Your task to perform on an android device: empty trash in google photos Image 0: 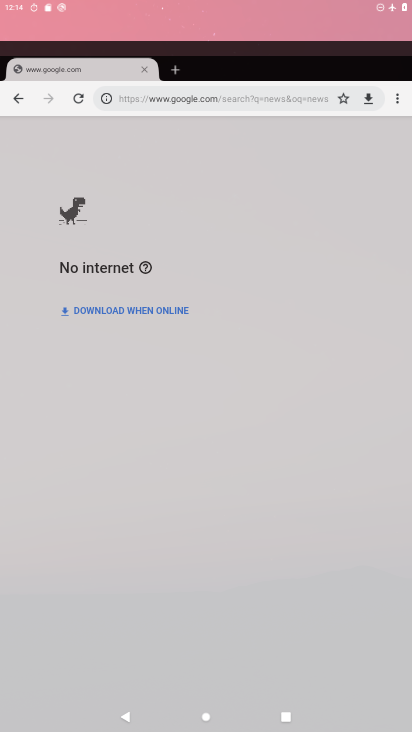
Step 0: drag from (283, 588) to (250, 98)
Your task to perform on an android device: empty trash in google photos Image 1: 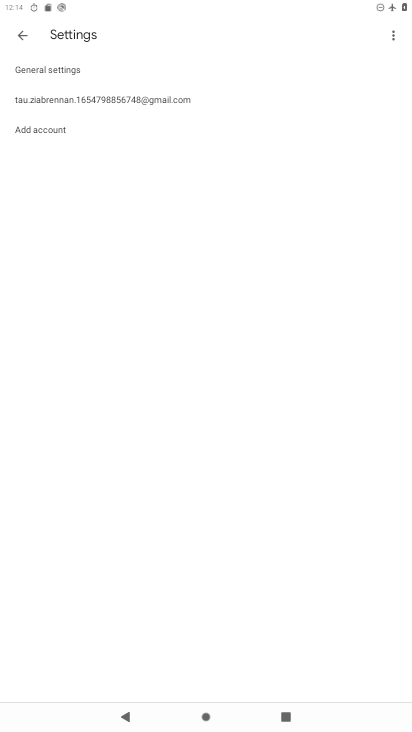
Step 1: press home button
Your task to perform on an android device: empty trash in google photos Image 2: 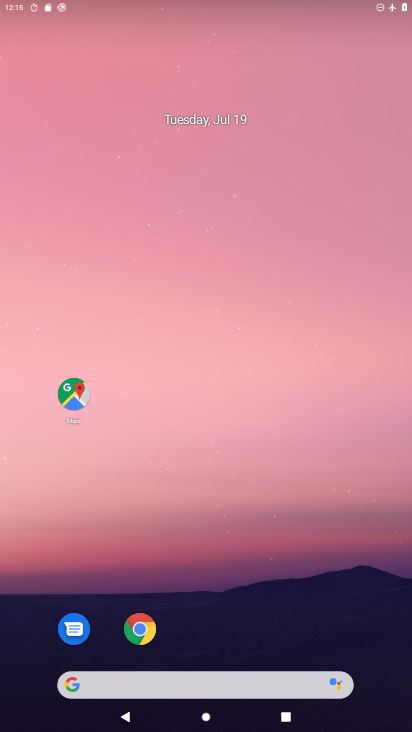
Step 2: drag from (255, 621) to (280, 139)
Your task to perform on an android device: empty trash in google photos Image 3: 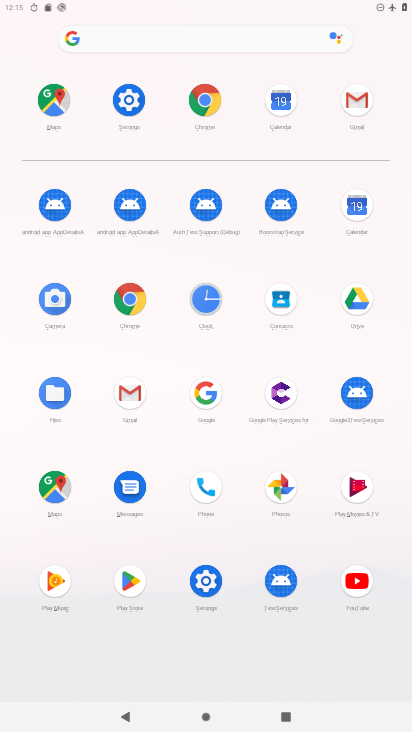
Step 3: click (288, 491)
Your task to perform on an android device: empty trash in google photos Image 4: 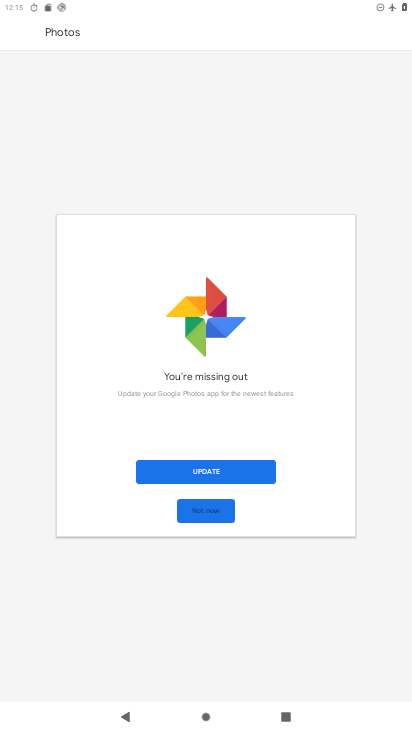
Step 4: click (209, 521)
Your task to perform on an android device: empty trash in google photos Image 5: 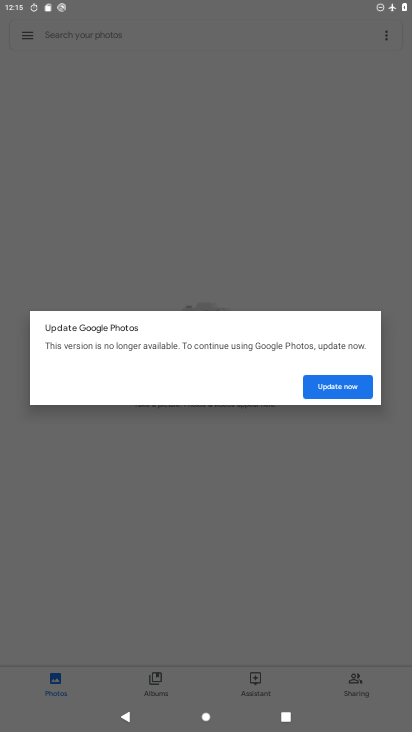
Step 5: click (342, 388)
Your task to perform on an android device: empty trash in google photos Image 6: 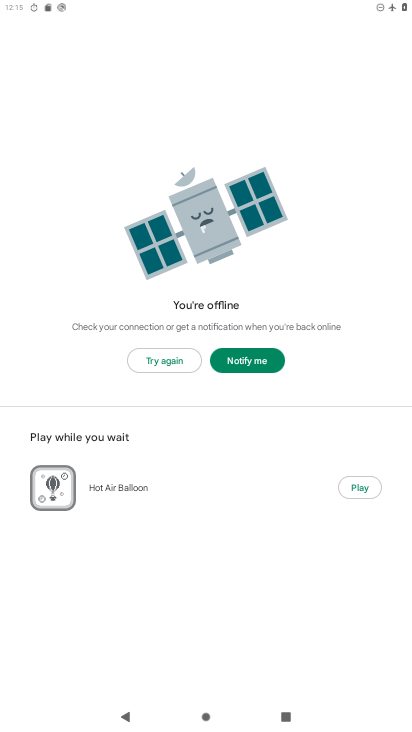
Step 6: task complete